Your task to perform on an android device: set the stopwatch Image 0: 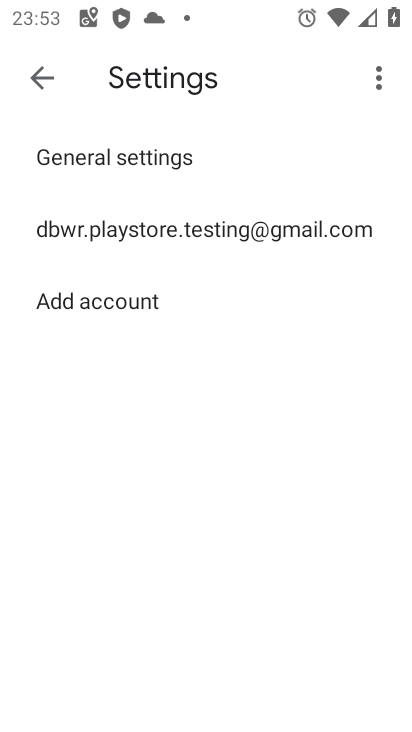
Step 0: press home button
Your task to perform on an android device: set the stopwatch Image 1: 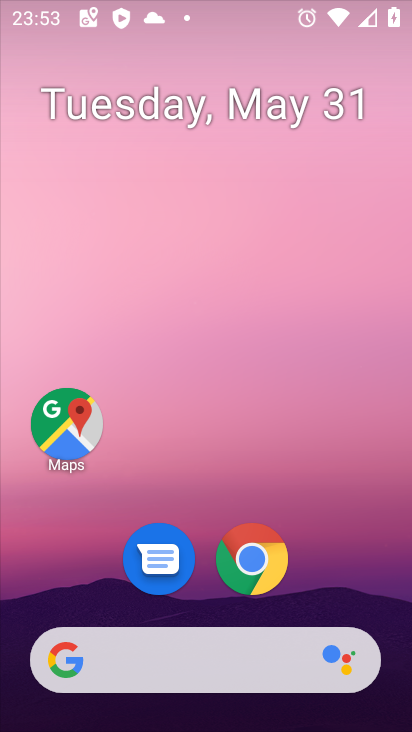
Step 1: drag from (319, 606) to (351, 99)
Your task to perform on an android device: set the stopwatch Image 2: 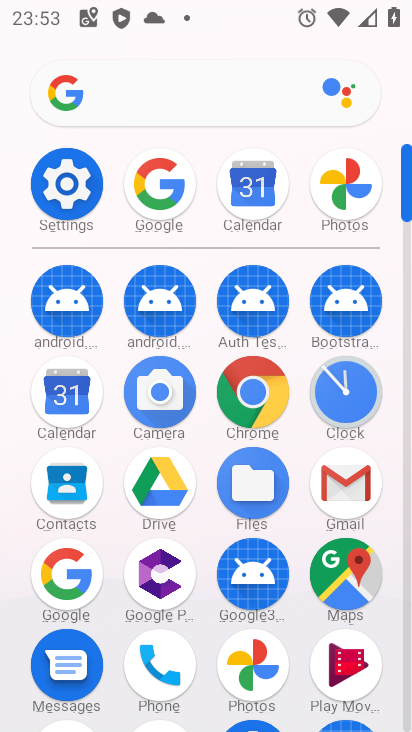
Step 2: click (344, 381)
Your task to perform on an android device: set the stopwatch Image 3: 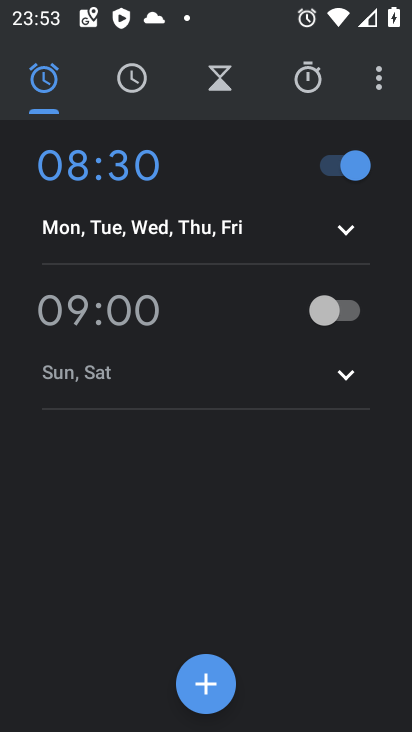
Step 3: click (311, 78)
Your task to perform on an android device: set the stopwatch Image 4: 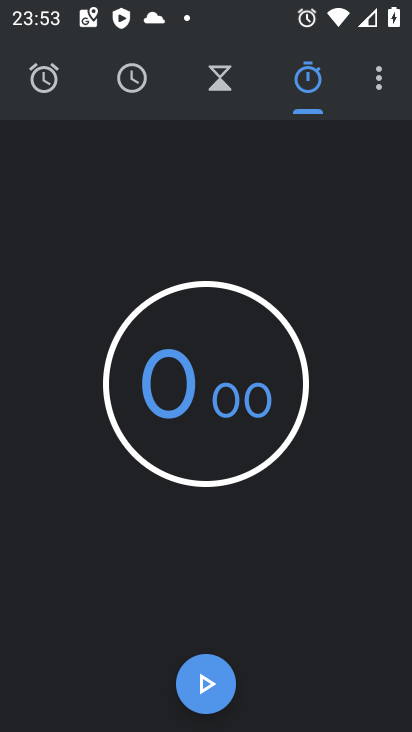
Step 4: click (200, 681)
Your task to perform on an android device: set the stopwatch Image 5: 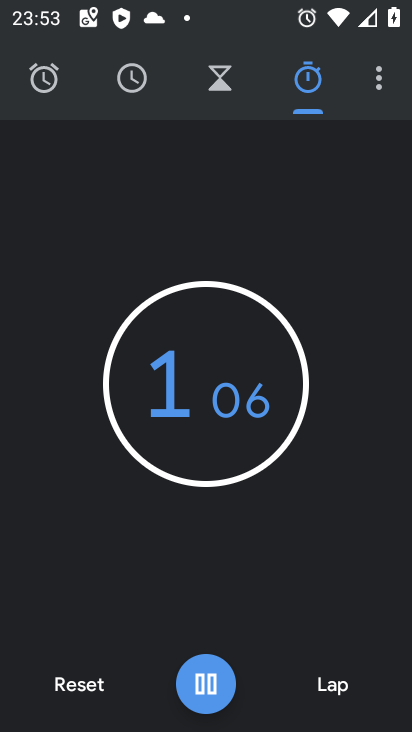
Step 5: click (205, 682)
Your task to perform on an android device: set the stopwatch Image 6: 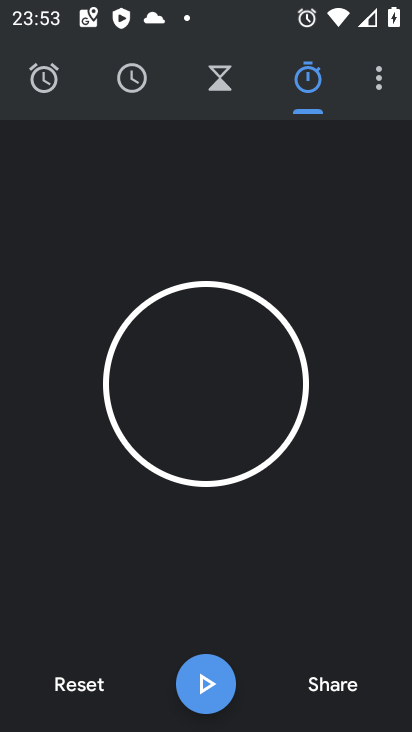
Step 6: task complete